Your task to perform on an android device: Open Wikipedia Image 0: 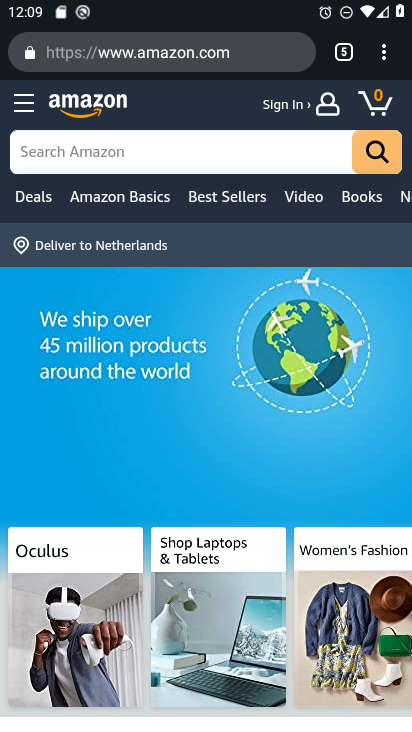
Step 0: click (341, 55)
Your task to perform on an android device: Open Wikipedia Image 1: 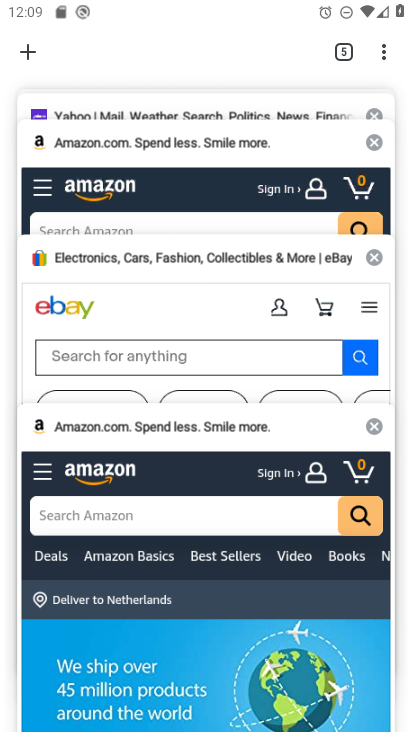
Step 1: click (31, 52)
Your task to perform on an android device: Open Wikipedia Image 2: 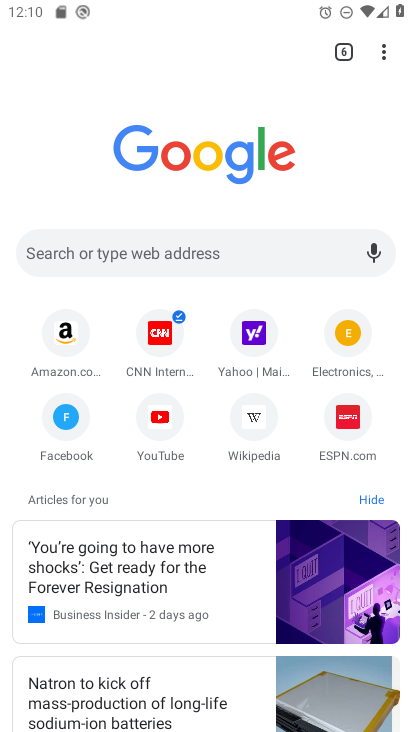
Step 2: click (271, 420)
Your task to perform on an android device: Open Wikipedia Image 3: 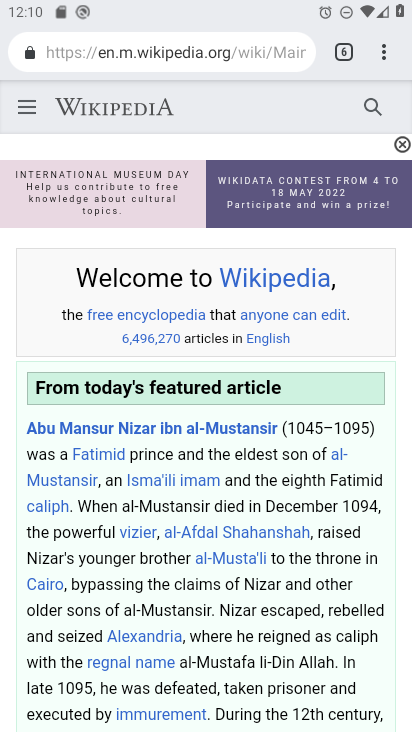
Step 3: task complete